Your task to perform on an android device: turn on priority inbox in the gmail app Image 0: 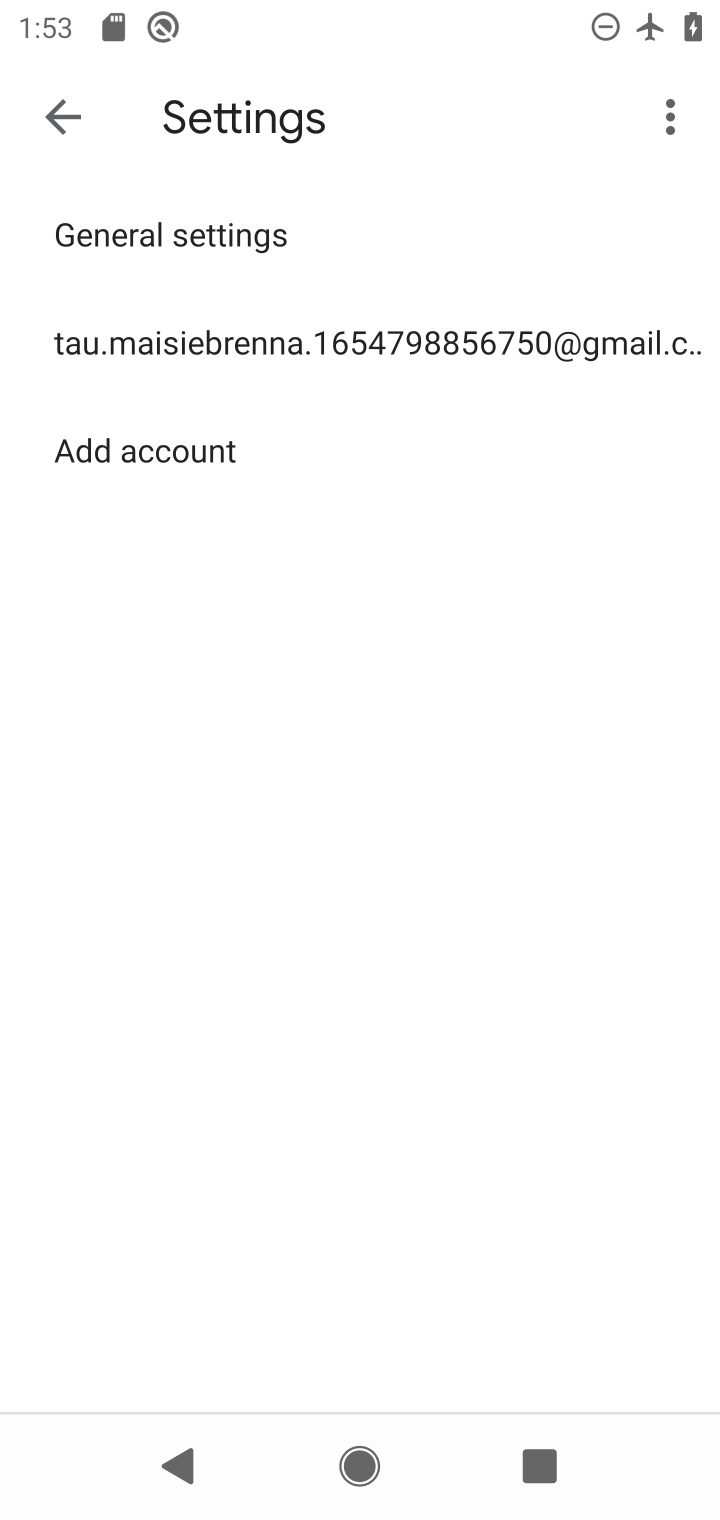
Step 0: click (55, 111)
Your task to perform on an android device: turn on priority inbox in the gmail app Image 1: 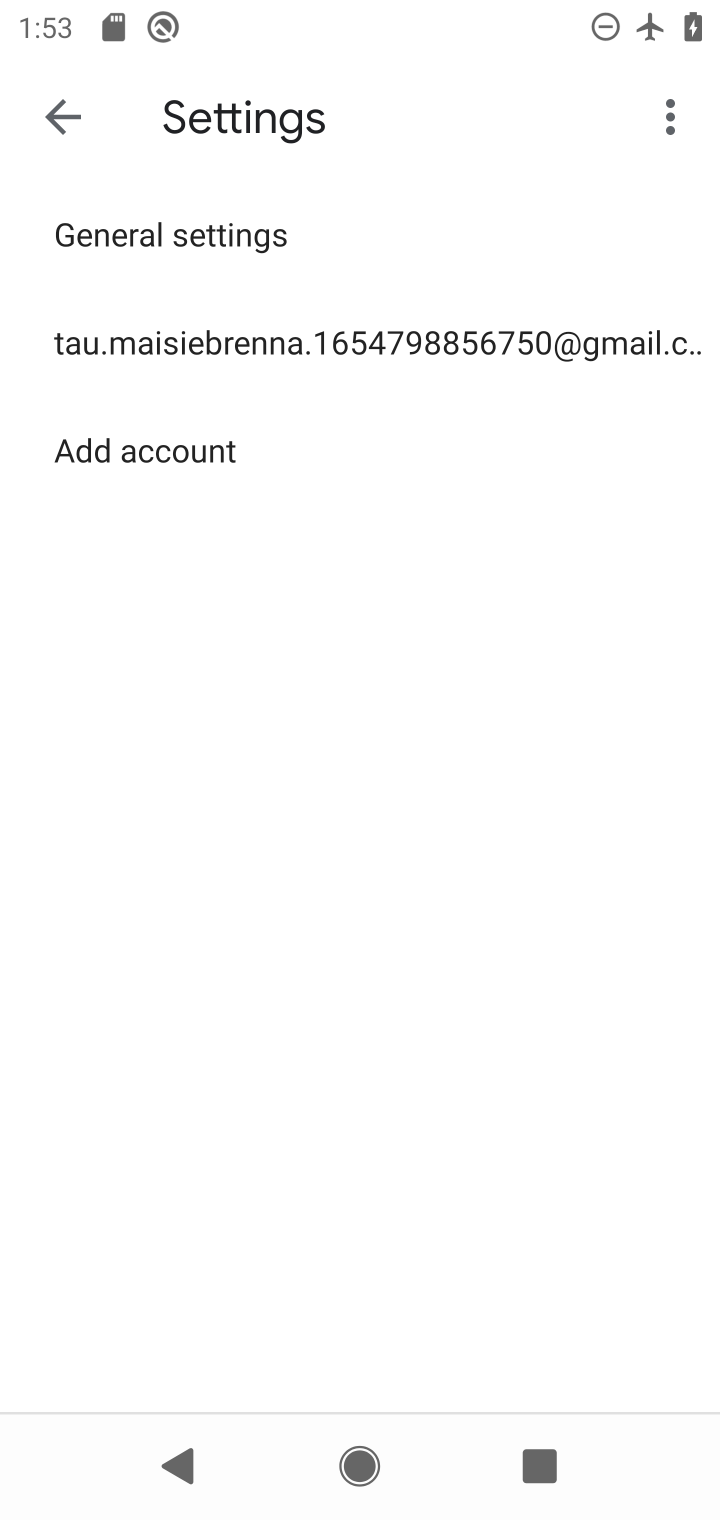
Step 1: click (596, 343)
Your task to perform on an android device: turn on priority inbox in the gmail app Image 2: 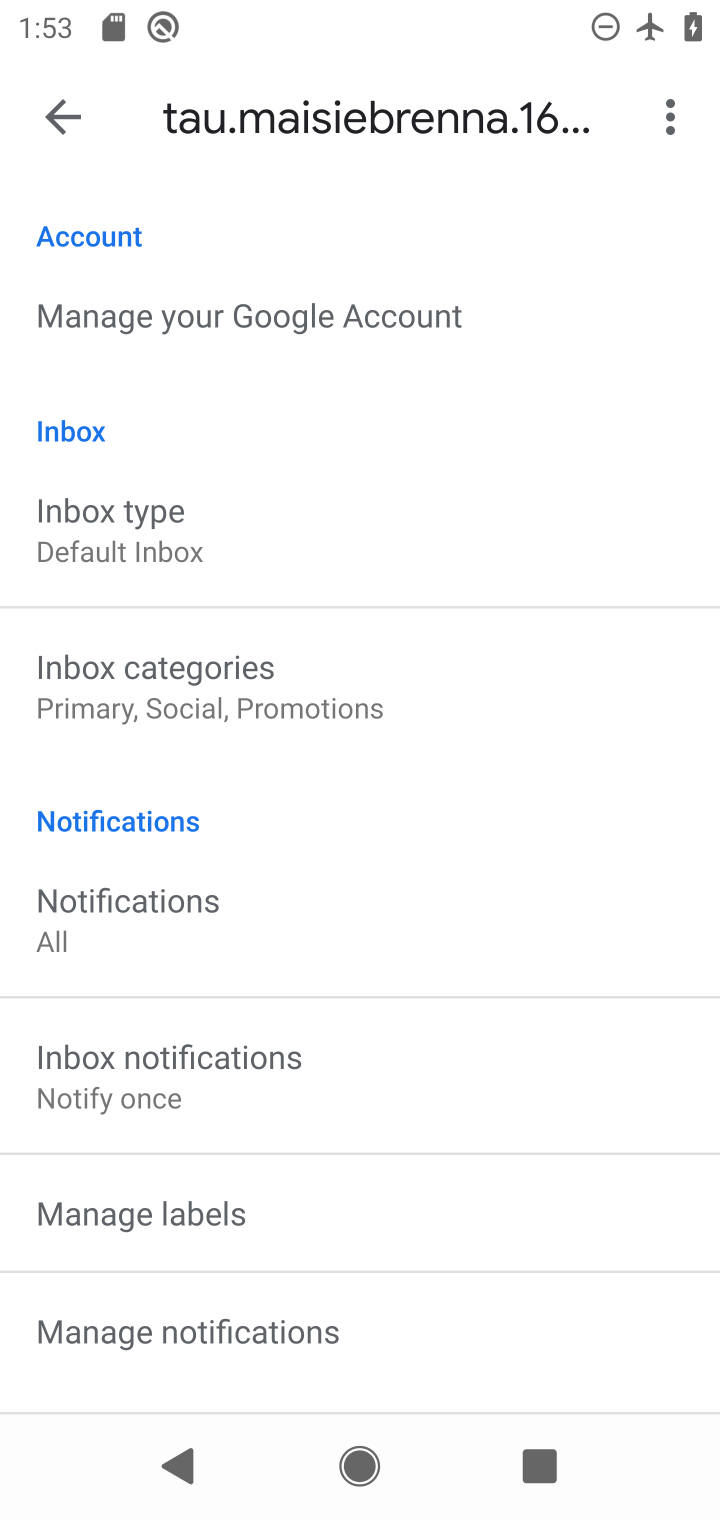
Step 2: click (155, 536)
Your task to perform on an android device: turn on priority inbox in the gmail app Image 3: 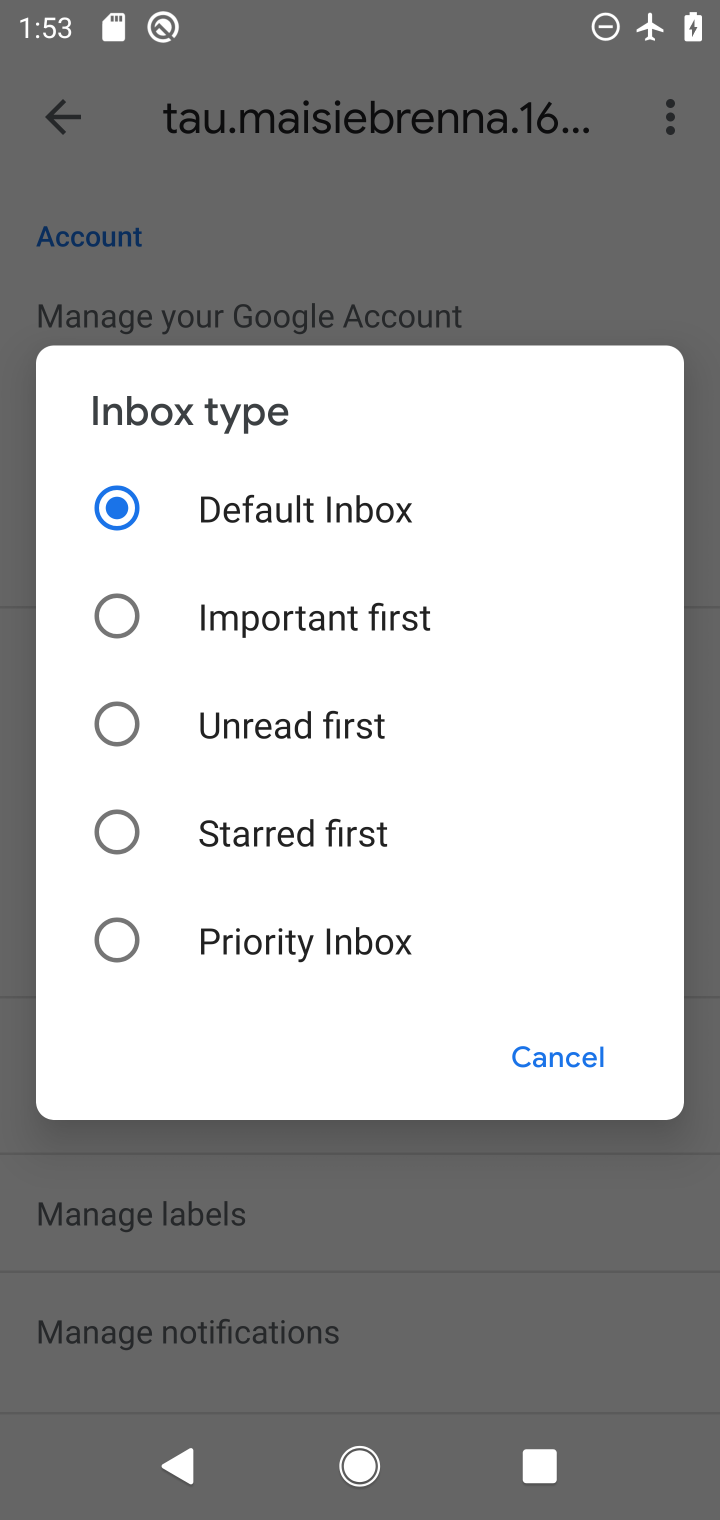
Step 3: click (113, 922)
Your task to perform on an android device: turn on priority inbox in the gmail app Image 4: 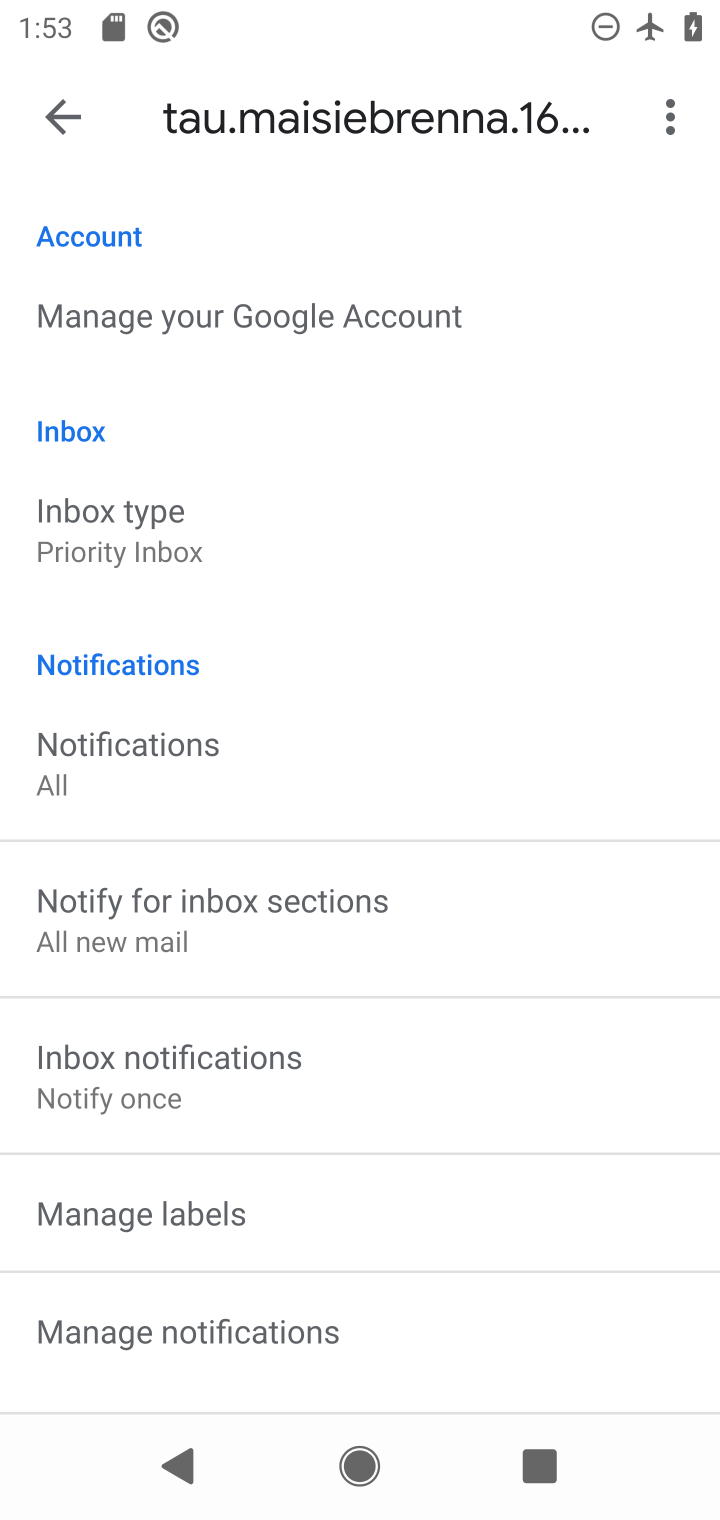
Step 4: task complete